Your task to perform on an android device: create a new album in the google photos Image 0: 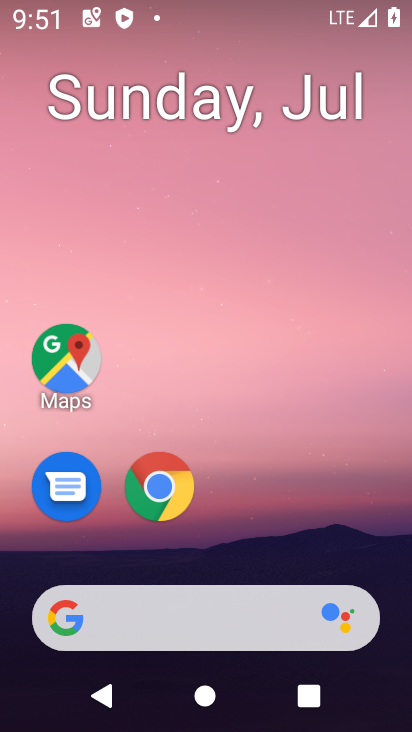
Step 0: press home button
Your task to perform on an android device: create a new album in the google photos Image 1: 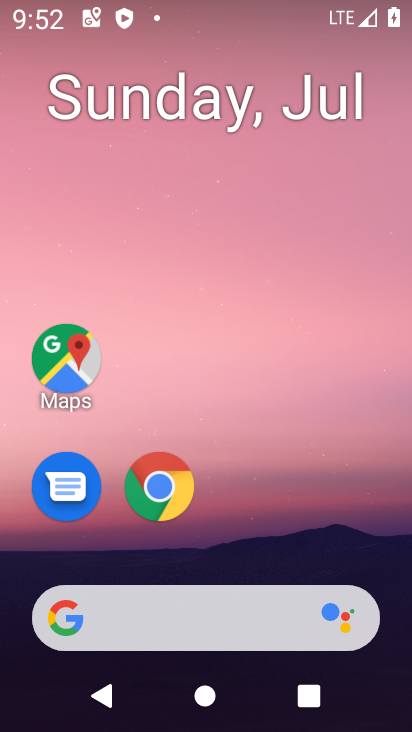
Step 1: drag from (348, 560) to (358, 53)
Your task to perform on an android device: create a new album in the google photos Image 2: 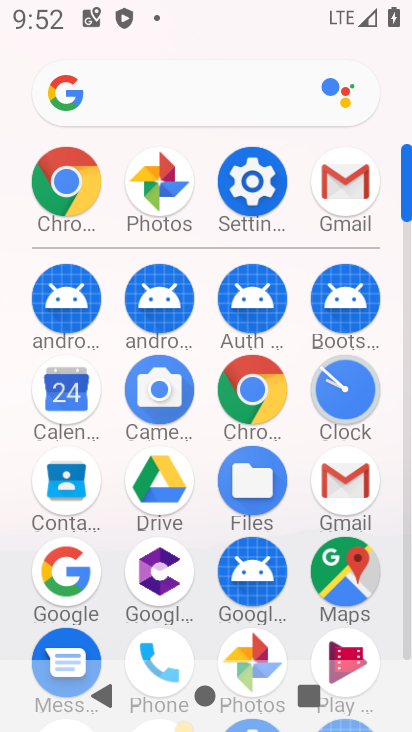
Step 2: click (71, 194)
Your task to perform on an android device: create a new album in the google photos Image 3: 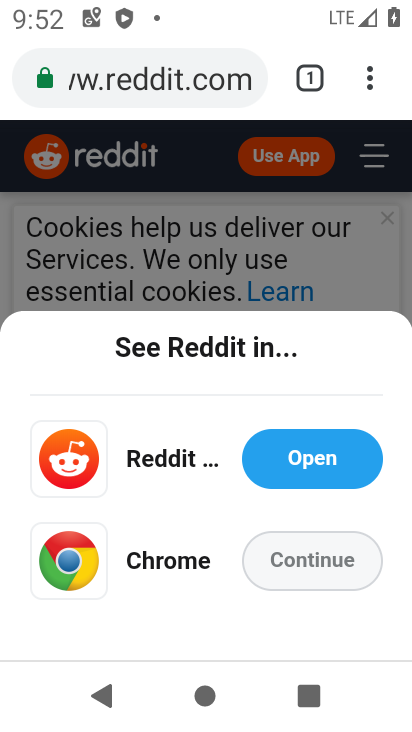
Step 3: click (365, 89)
Your task to perform on an android device: create a new album in the google photos Image 4: 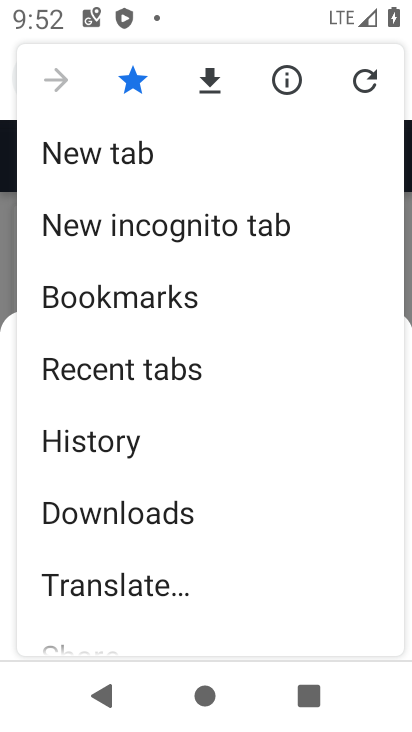
Step 4: task complete